Your task to perform on an android device: open sync settings in chrome Image 0: 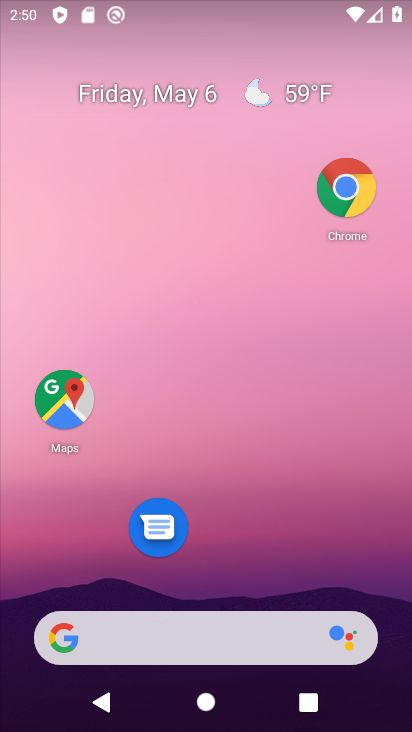
Step 0: drag from (306, 539) to (232, 137)
Your task to perform on an android device: open sync settings in chrome Image 1: 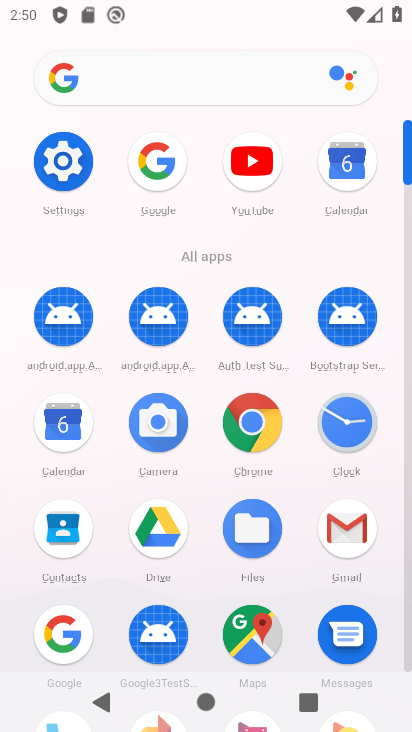
Step 1: click (246, 467)
Your task to perform on an android device: open sync settings in chrome Image 2: 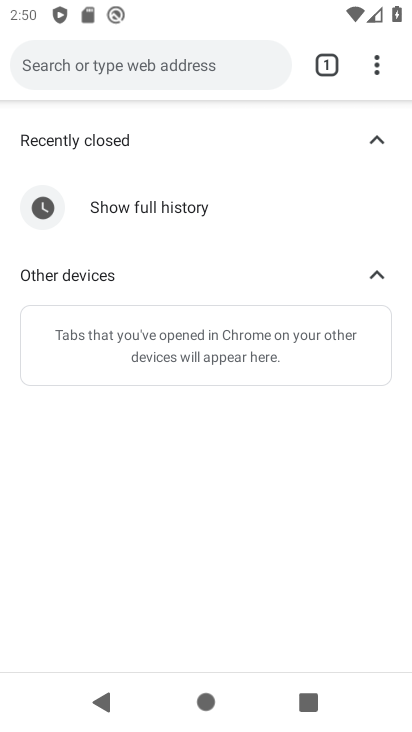
Step 2: click (372, 66)
Your task to perform on an android device: open sync settings in chrome Image 3: 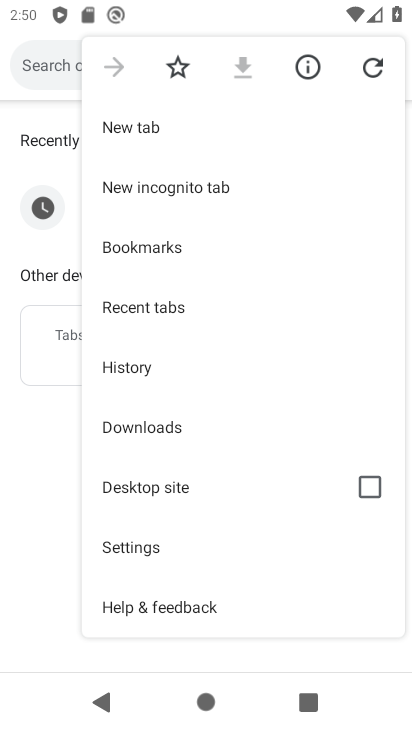
Step 3: click (161, 540)
Your task to perform on an android device: open sync settings in chrome Image 4: 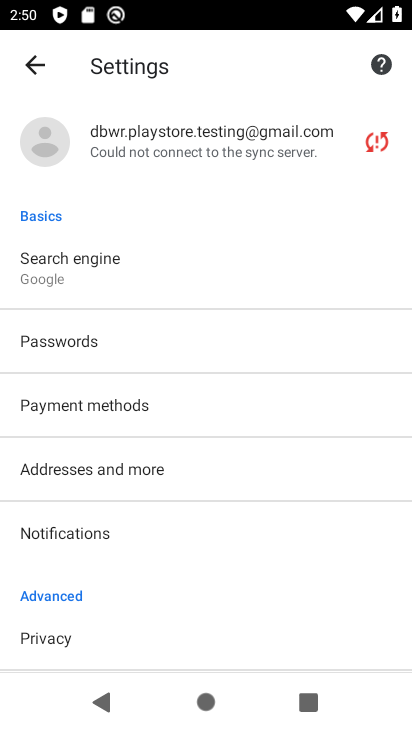
Step 4: drag from (143, 614) to (175, 292)
Your task to perform on an android device: open sync settings in chrome Image 5: 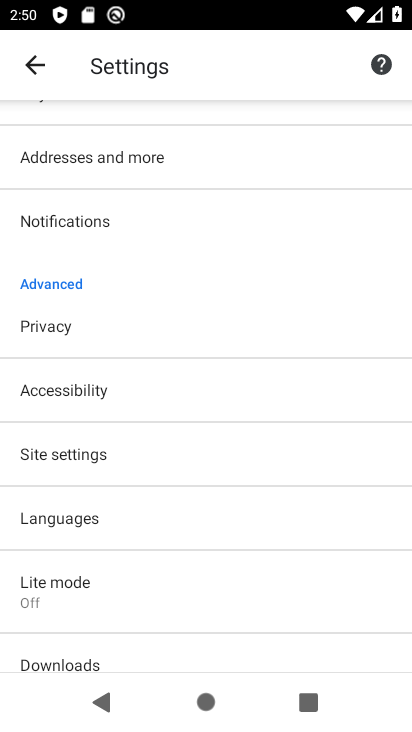
Step 5: drag from (161, 618) to (206, 316)
Your task to perform on an android device: open sync settings in chrome Image 6: 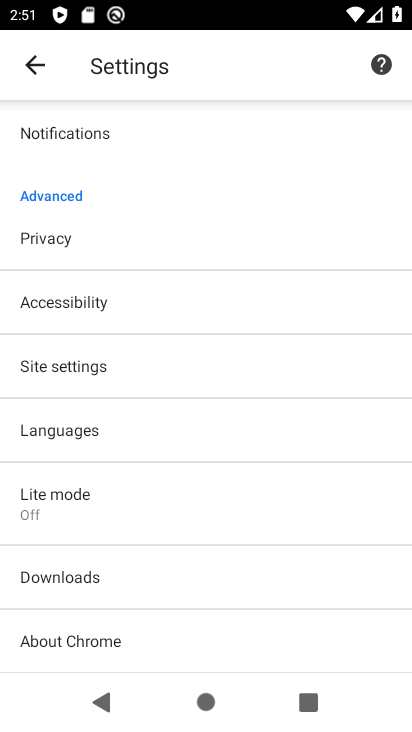
Step 6: drag from (157, 603) to (146, 305)
Your task to perform on an android device: open sync settings in chrome Image 7: 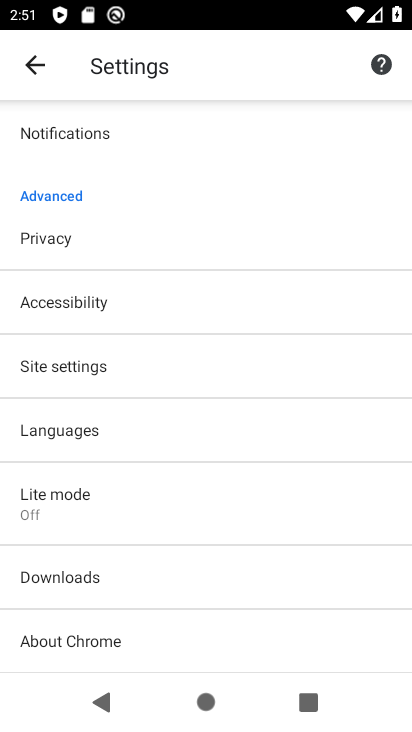
Step 7: drag from (167, 298) to (231, 622)
Your task to perform on an android device: open sync settings in chrome Image 8: 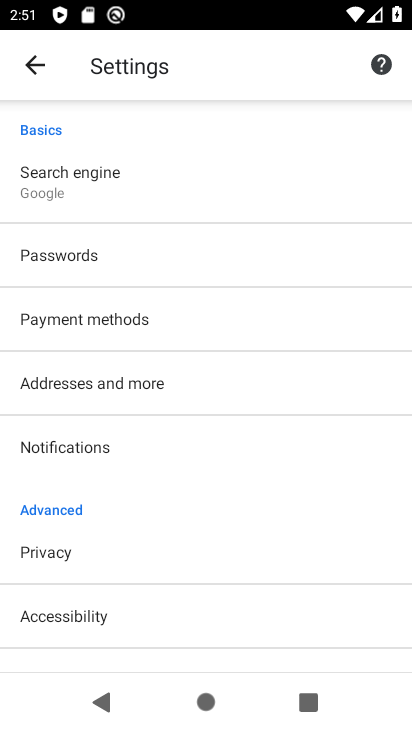
Step 8: drag from (112, 214) to (138, 599)
Your task to perform on an android device: open sync settings in chrome Image 9: 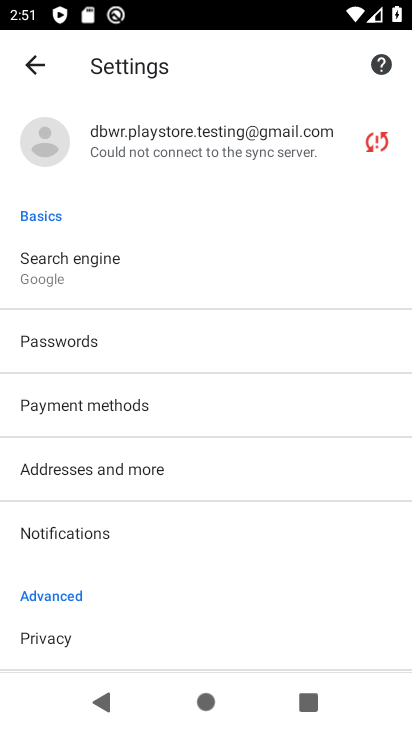
Step 9: click (116, 160)
Your task to perform on an android device: open sync settings in chrome Image 10: 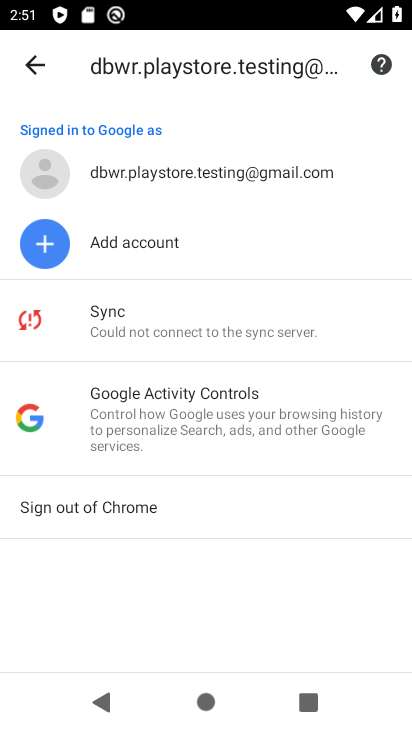
Step 10: click (96, 309)
Your task to perform on an android device: open sync settings in chrome Image 11: 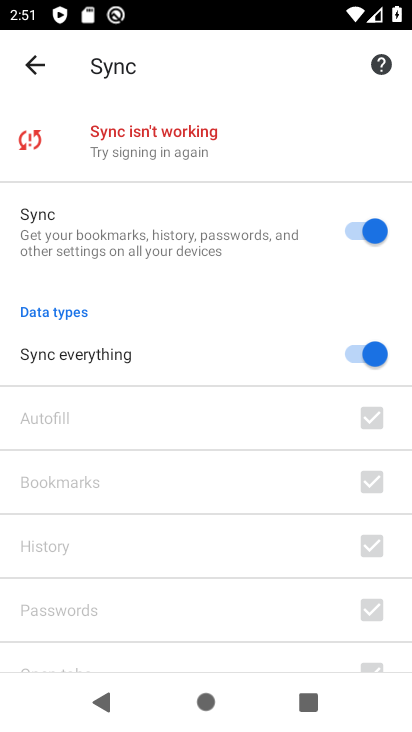
Step 11: task complete